Your task to perform on an android device: turn on airplane mode Image 0: 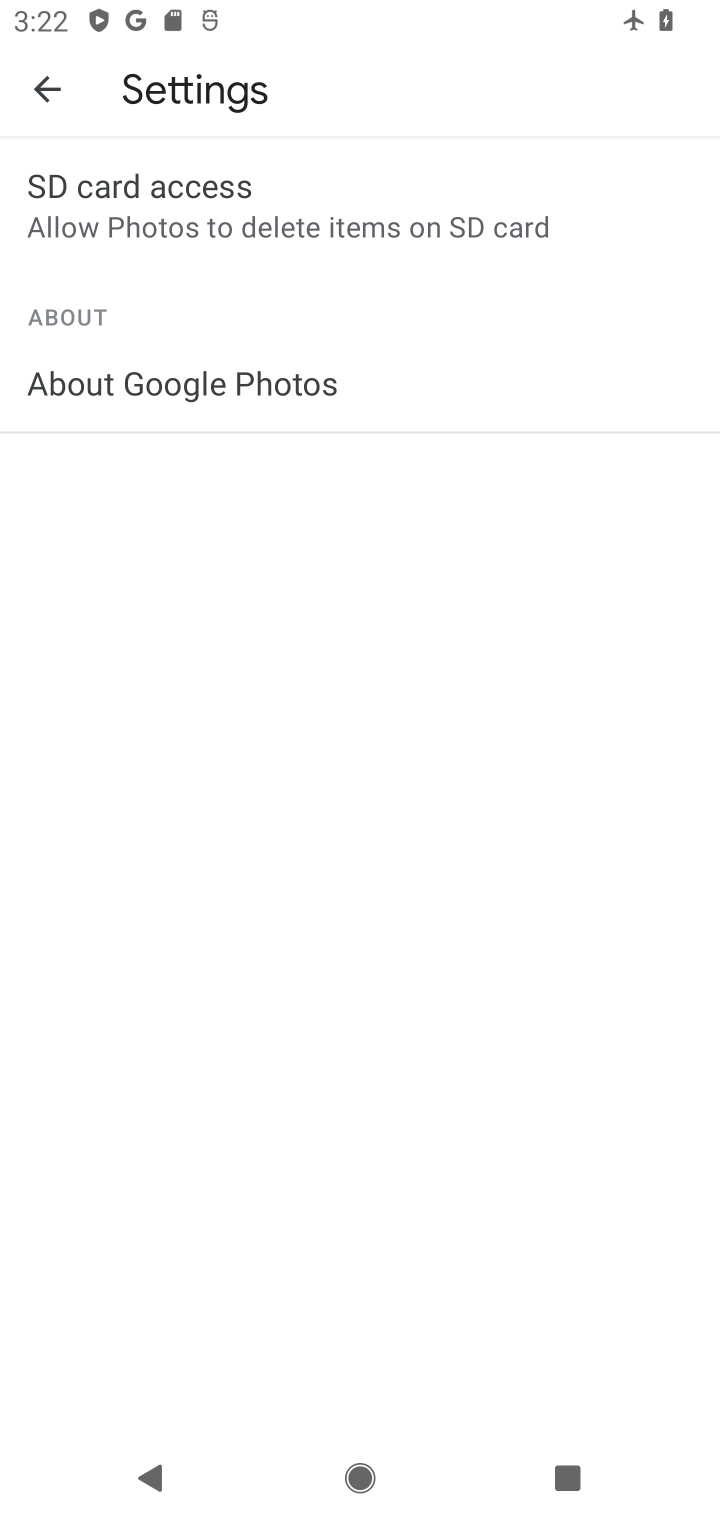
Step 0: press home button
Your task to perform on an android device: turn on airplane mode Image 1: 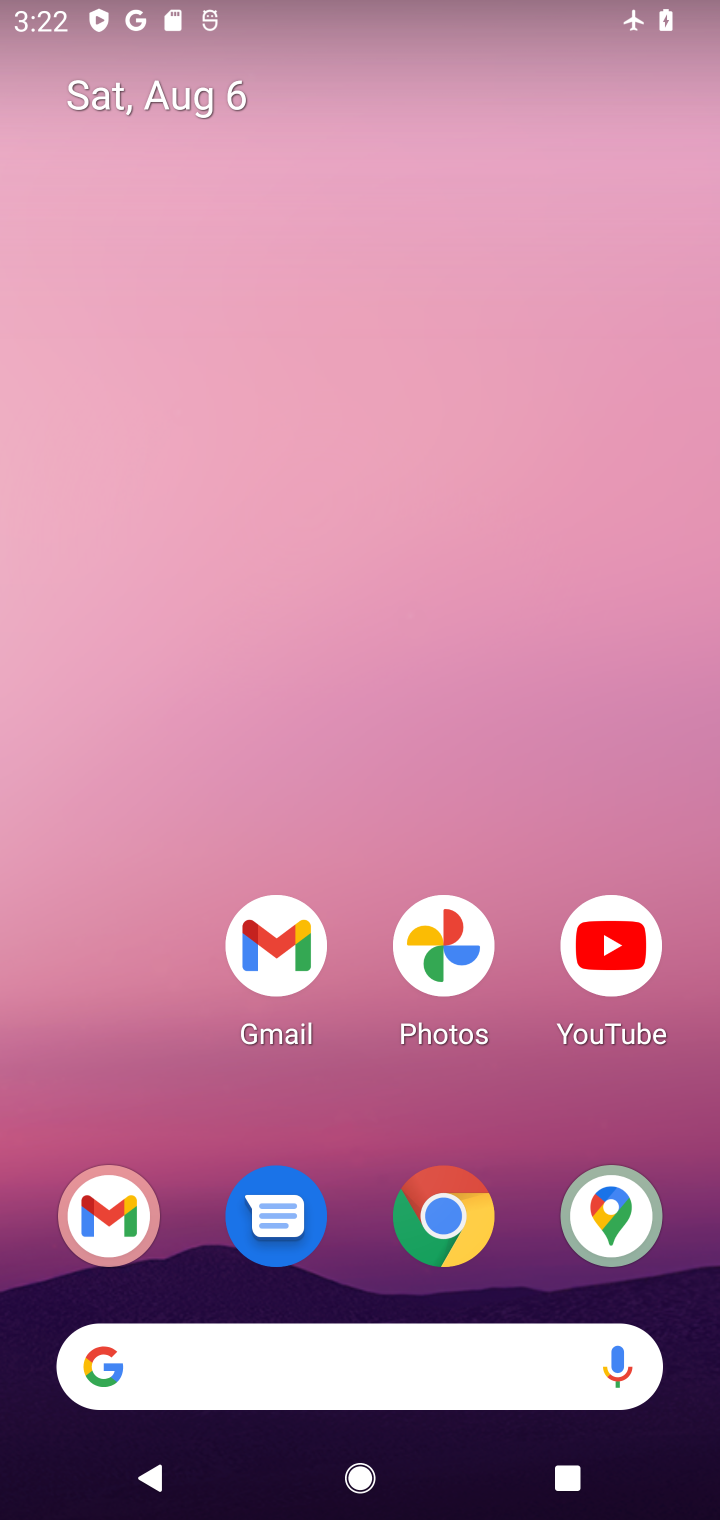
Step 1: drag from (542, 1128) to (475, 562)
Your task to perform on an android device: turn on airplane mode Image 2: 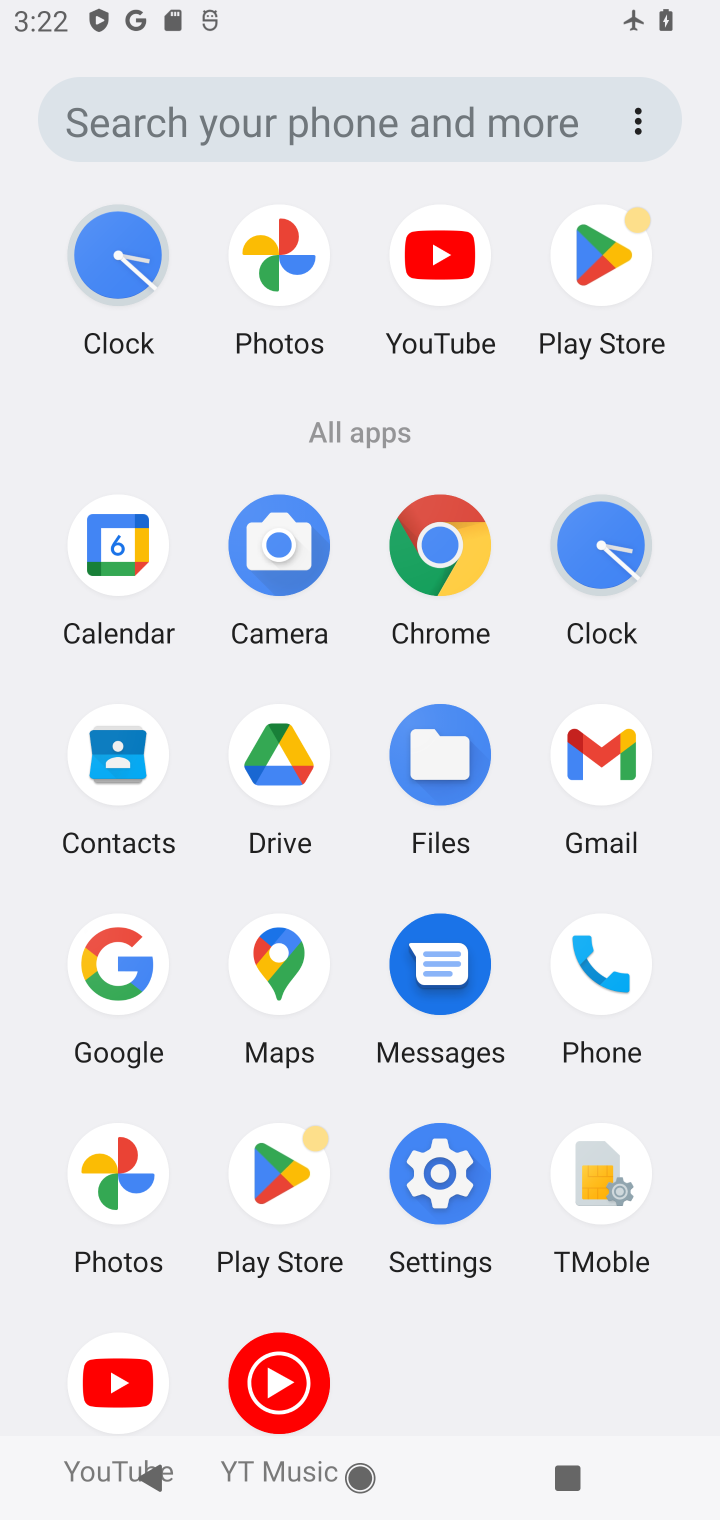
Step 2: click (415, 1229)
Your task to perform on an android device: turn on airplane mode Image 3: 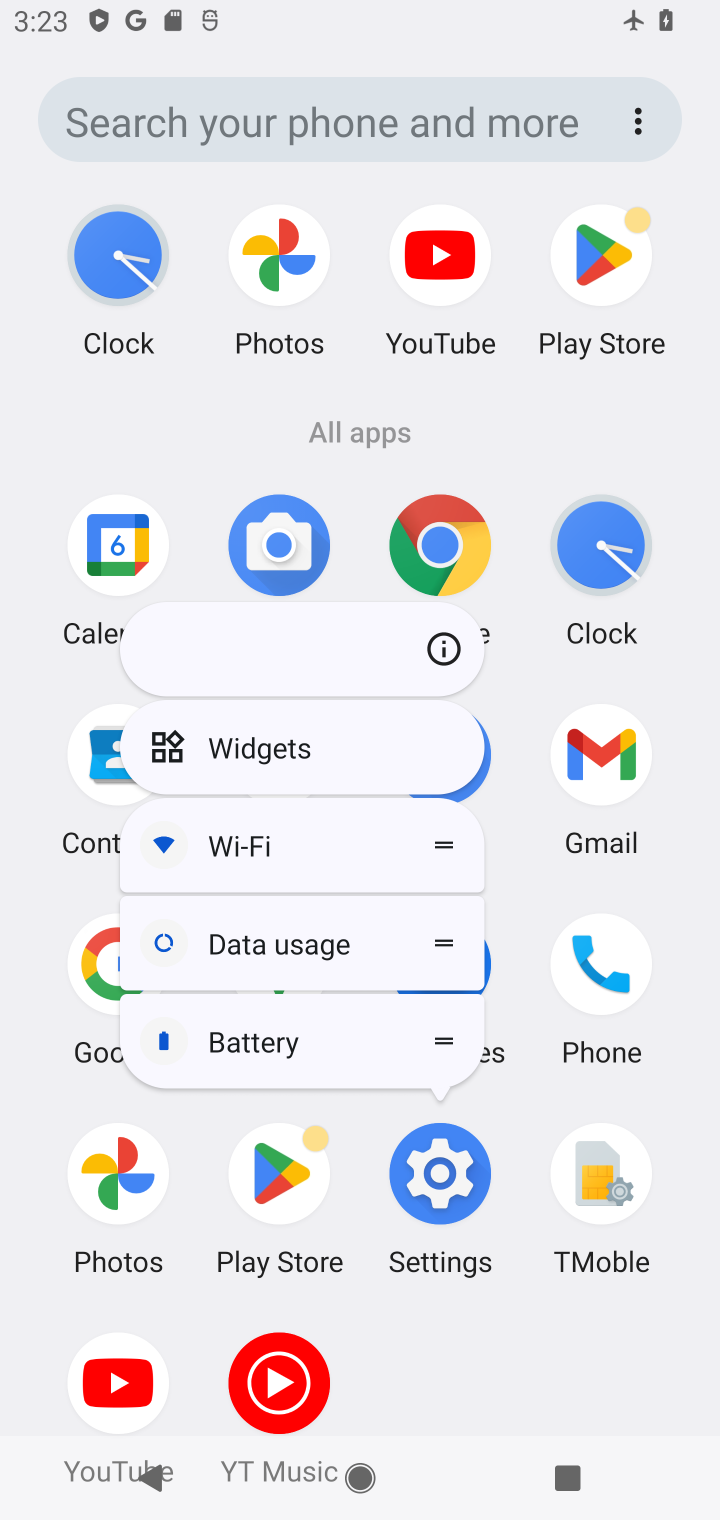
Step 3: click (423, 1208)
Your task to perform on an android device: turn on airplane mode Image 4: 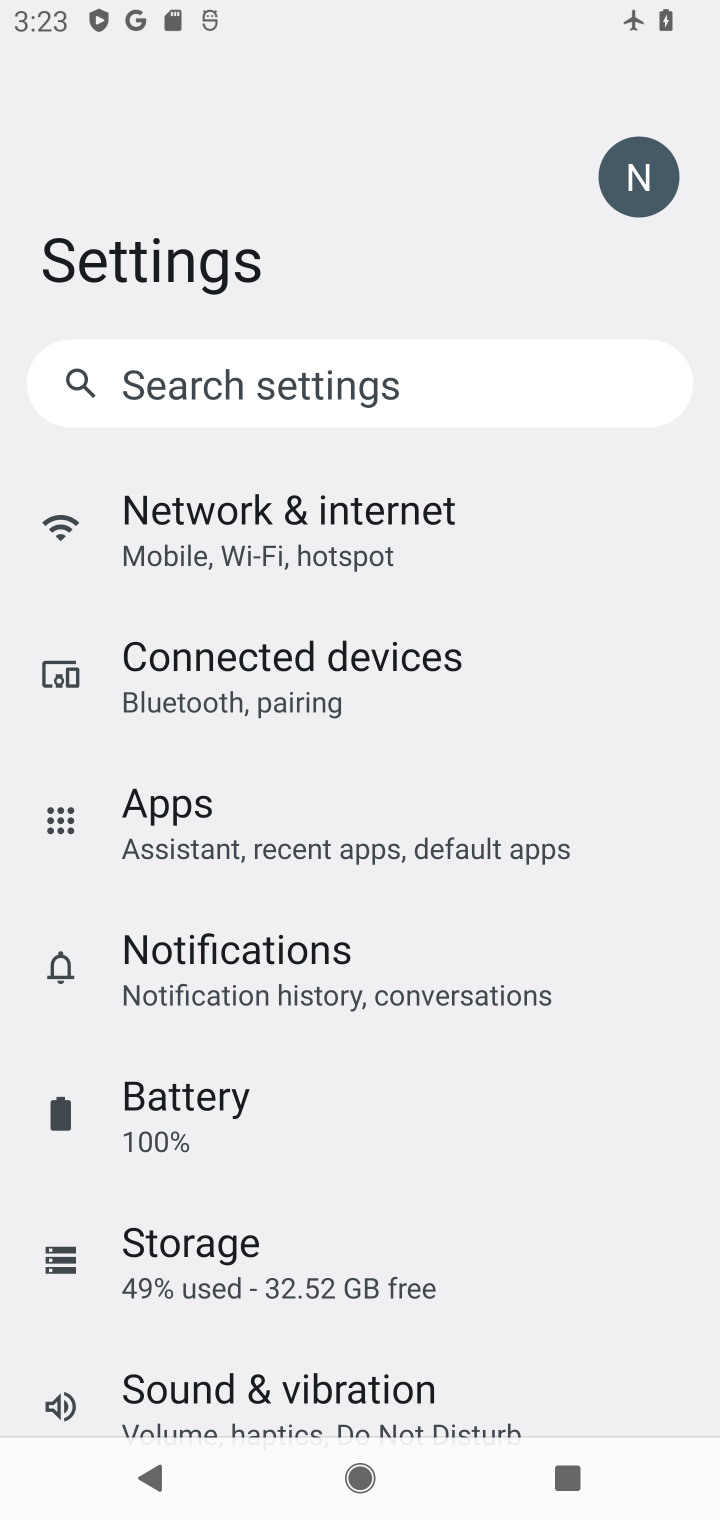
Step 4: click (449, 552)
Your task to perform on an android device: turn on airplane mode Image 5: 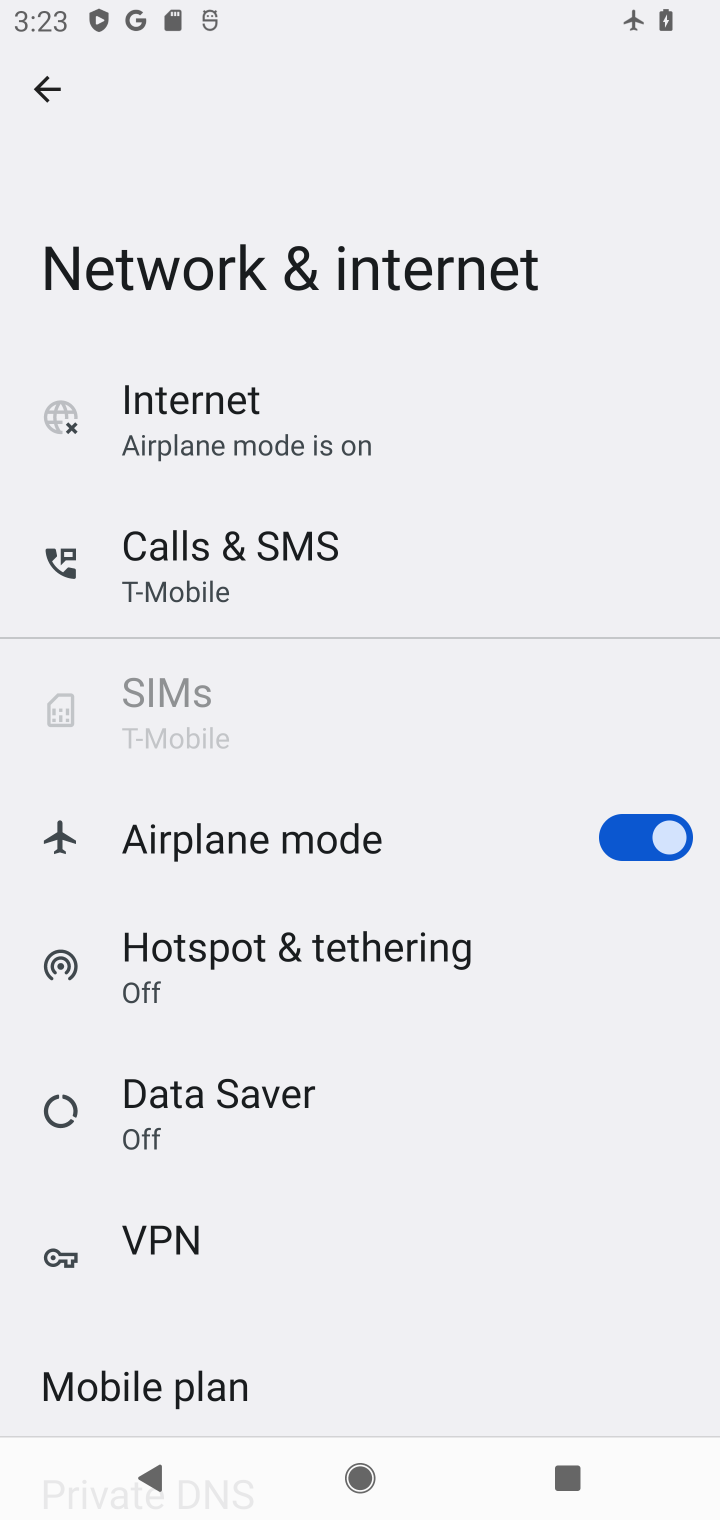
Step 5: task complete